Your task to perform on an android device: Open wifi settings Image 0: 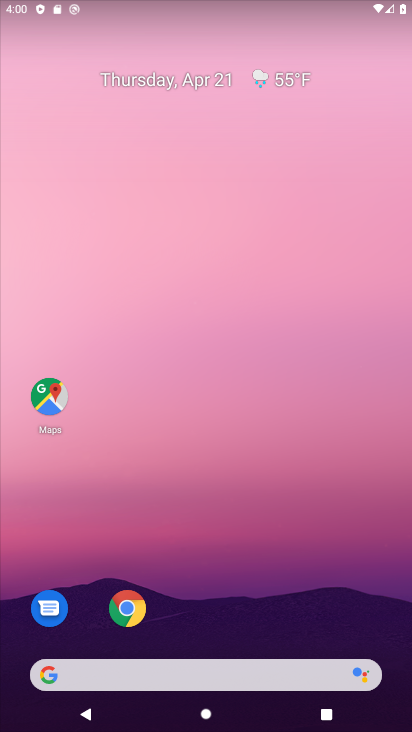
Step 0: drag from (278, 597) to (292, 36)
Your task to perform on an android device: Open wifi settings Image 1: 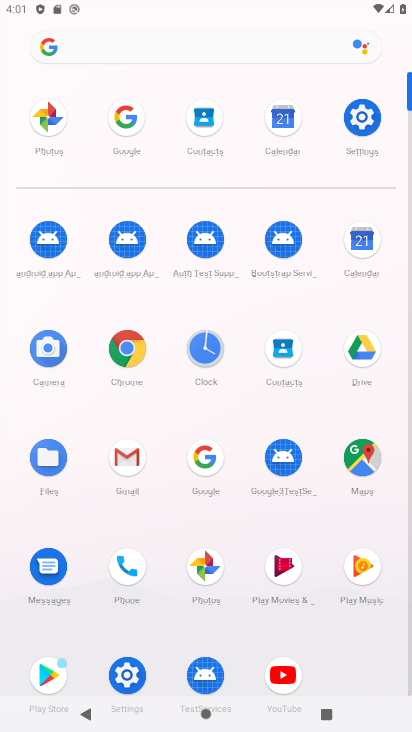
Step 1: click (362, 131)
Your task to perform on an android device: Open wifi settings Image 2: 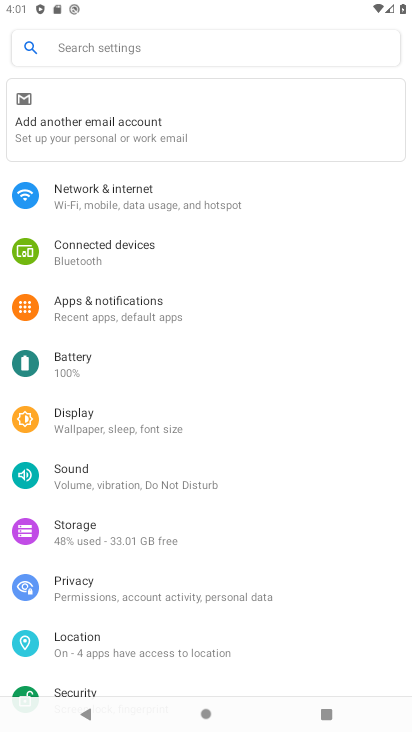
Step 2: click (159, 201)
Your task to perform on an android device: Open wifi settings Image 3: 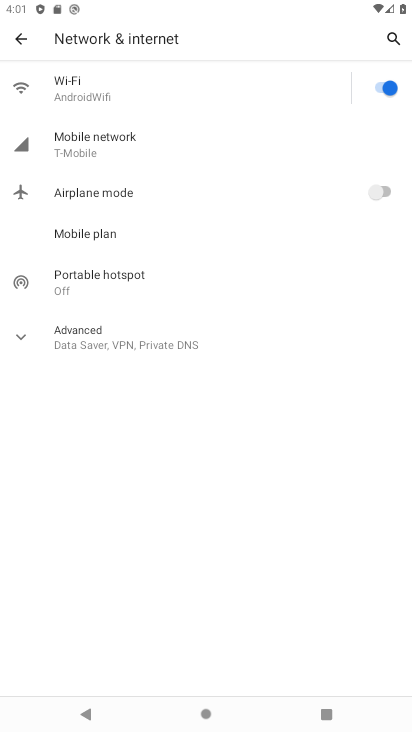
Step 3: click (202, 94)
Your task to perform on an android device: Open wifi settings Image 4: 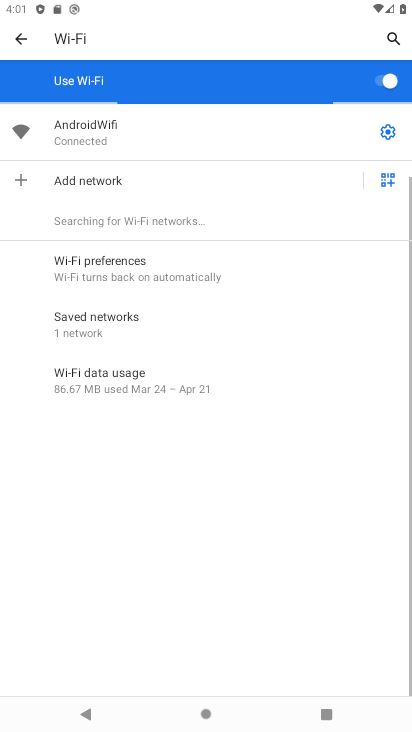
Step 4: task complete